Your task to perform on an android device: Search for "razer kraken" on target.com, select the first entry, add it to the cart, then select checkout. Image 0: 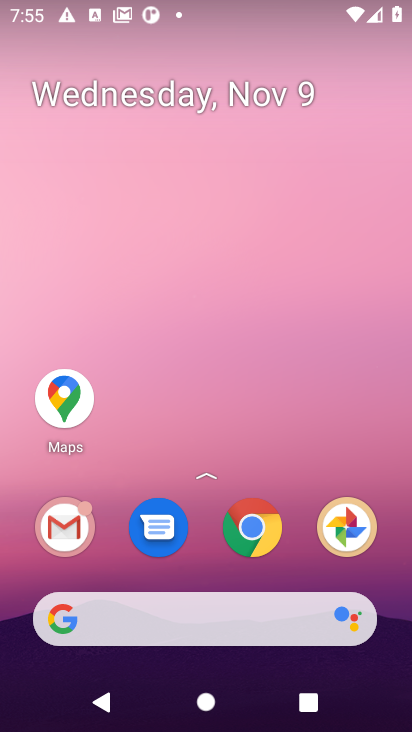
Step 0: click (247, 540)
Your task to perform on an android device: Search for "razer kraken" on target.com, select the first entry, add it to the cart, then select checkout. Image 1: 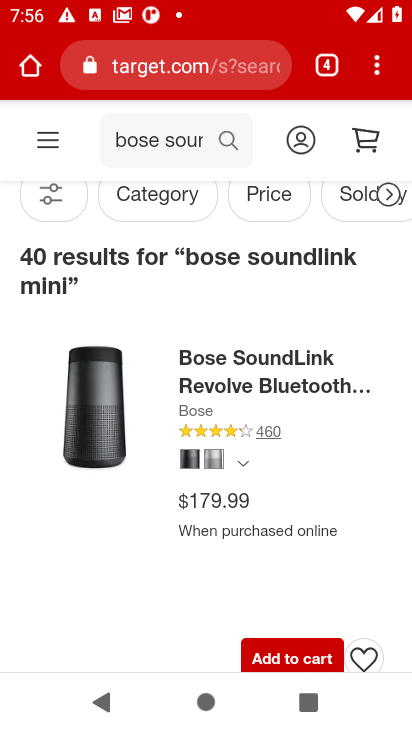
Step 1: click (225, 145)
Your task to perform on an android device: Search for "razer kraken" on target.com, select the first entry, add it to the cart, then select checkout. Image 2: 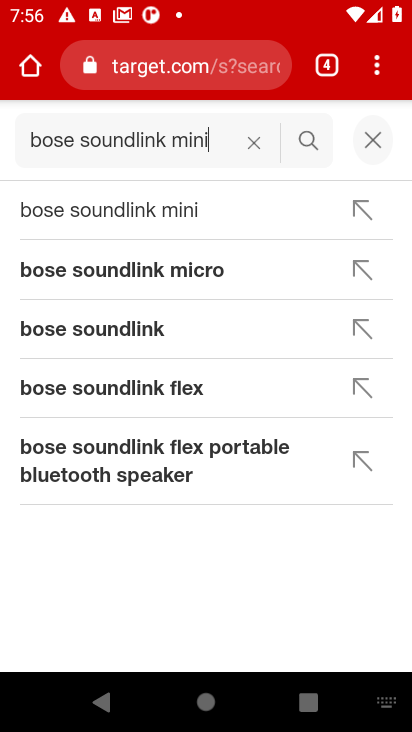
Step 2: click (252, 141)
Your task to perform on an android device: Search for "razer kraken" on target.com, select the first entry, add it to the cart, then select checkout. Image 3: 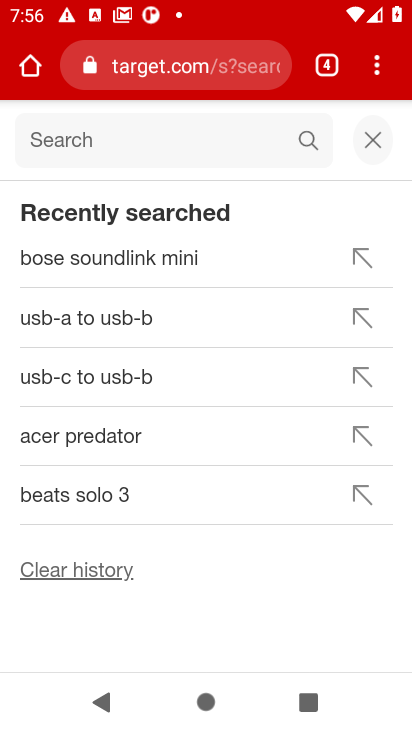
Step 3: type "razer kraken"
Your task to perform on an android device: Search for "razer kraken" on target.com, select the first entry, add it to the cart, then select checkout. Image 4: 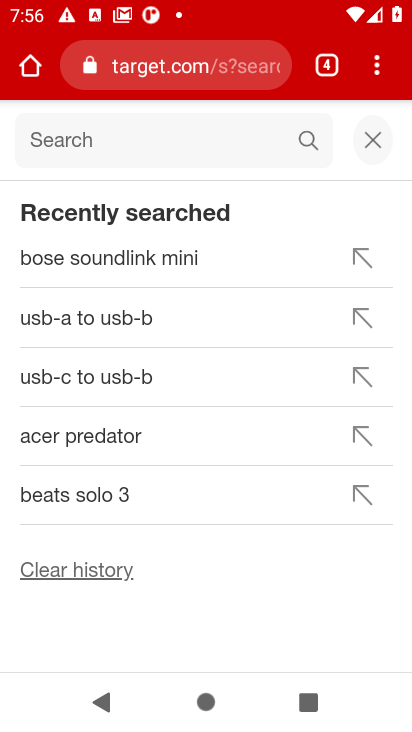
Step 4: click (79, 145)
Your task to perform on an android device: Search for "razer kraken" on target.com, select the first entry, add it to the cart, then select checkout. Image 5: 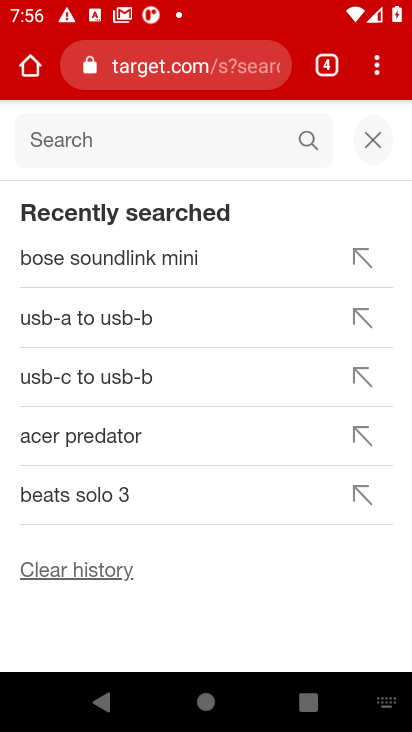
Step 5: type "razer kraken"
Your task to perform on an android device: Search for "razer kraken" on target.com, select the first entry, add it to the cart, then select checkout. Image 6: 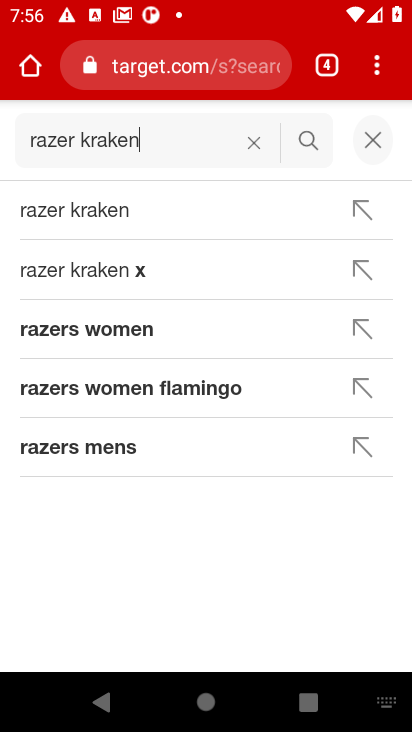
Step 6: click (53, 215)
Your task to perform on an android device: Search for "razer kraken" on target.com, select the first entry, add it to the cart, then select checkout. Image 7: 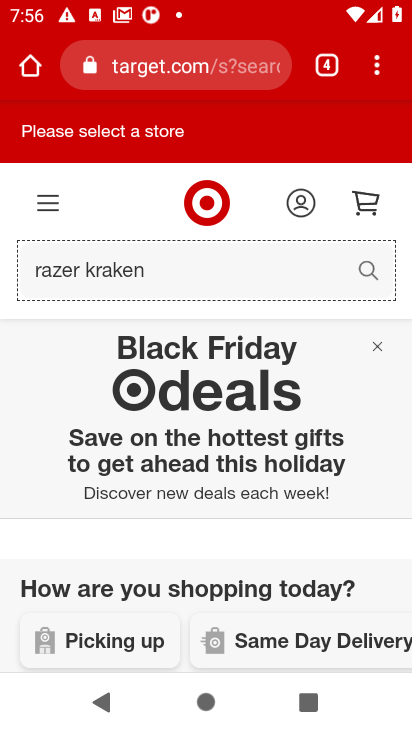
Step 7: drag from (178, 573) to (196, 267)
Your task to perform on an android device: Search for "razer kraken" on target.com, select the first entry, add it to the cart, then select checkout. Image 8: 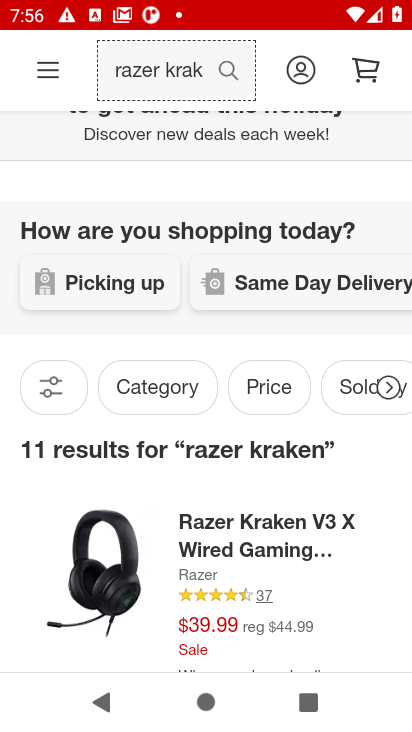
Step 8: drag from (187, 515) to (197, 350)
Your task to perform on an android device: Search for "razer kraken" on target.com, select the first entry, add it to the cart, then select checkout. Image 9: 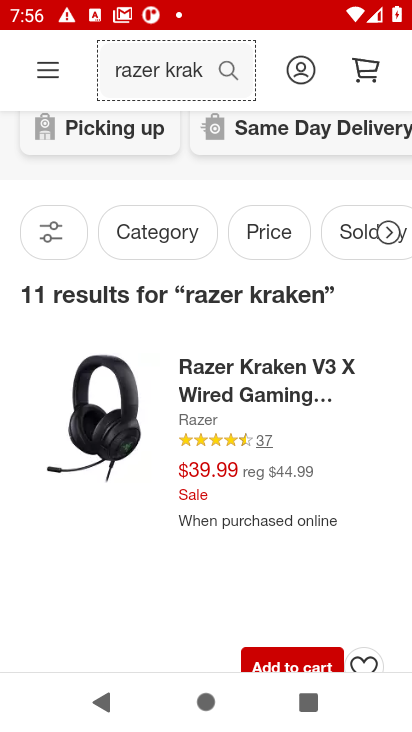
Step 9: click (201, 380)
Your task to perform on an android device: Search for "razer kraken" on target.com, select the first entry, add it to the cart, then select checkout. Image 10: 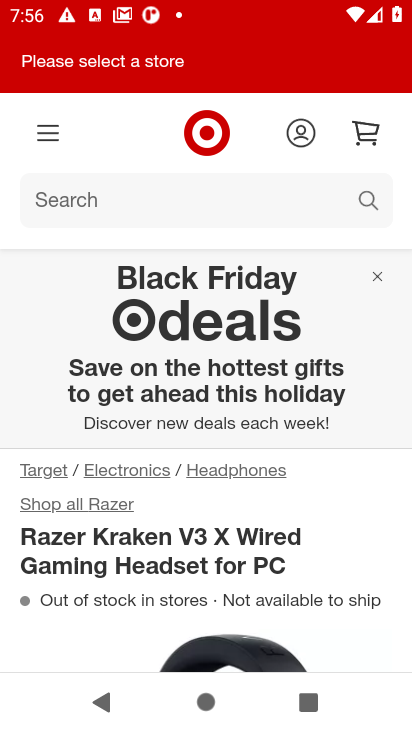
Step 10: drag from (195, 508) to (227, 219)
Your task to perform on an android device: Search for "razer kraken" on target.com, select the first entry, add it to the cart, then select checkout. Image 11: 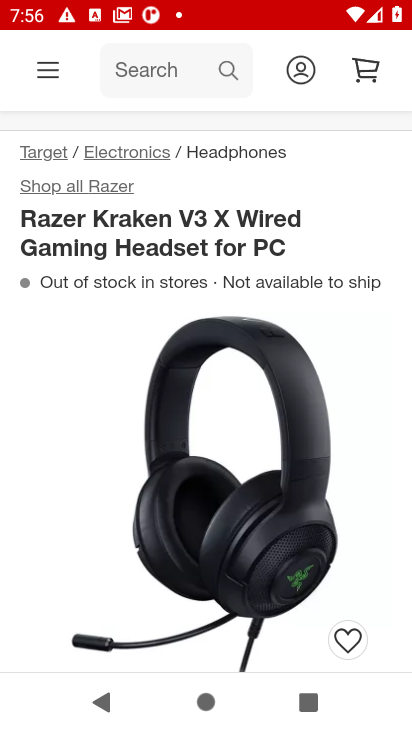
Step 11: drag from (226, 504) to (254, 210)
Your task to perform on an android device: Search for "razer kraken" on target.com, select the first entry, add it to the cart, then select checkout. Image 12: 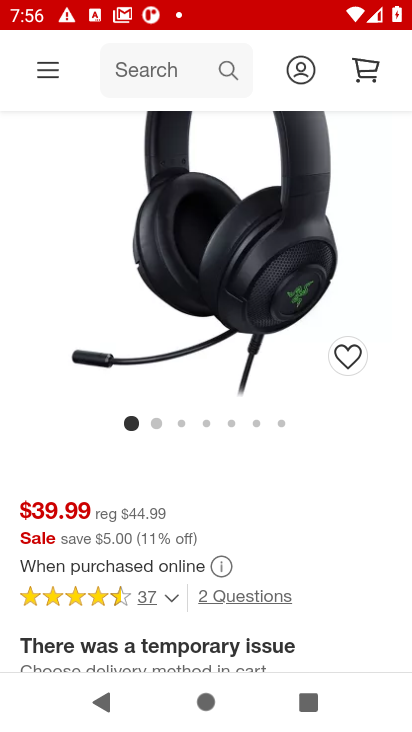
Step 12: drag from (230, 447) to (224, 186)
Your task to perform on an android device: Search for "razer kraken" on target.com, select the first entry, add it to the cart, then select checkout. Image 13: 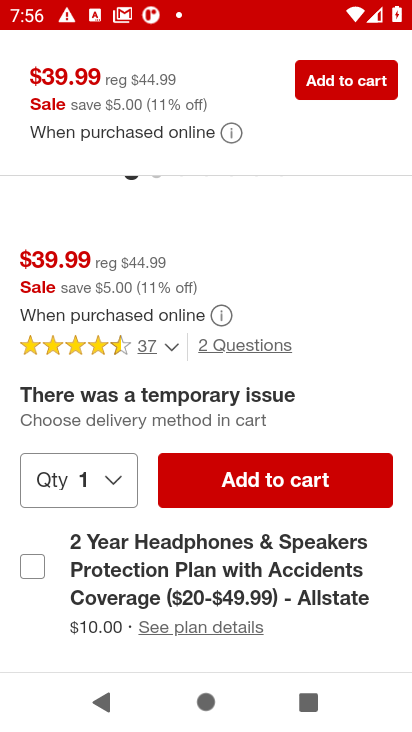
Step 13: click (246, 485)
Your task to perform on an android device: Search for "razer kraken" on target.com, select the first entry, add it to the cart, then select checkout. Image 14: 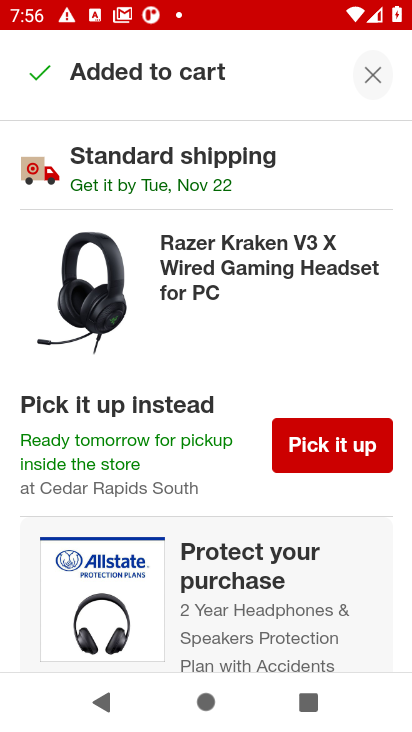
Step 14: click (376, 84)
Your task to perform on an android device: Search for "razer kraken" on target.com, select the first entry, add it to the cart, then select checkout. Image 15: 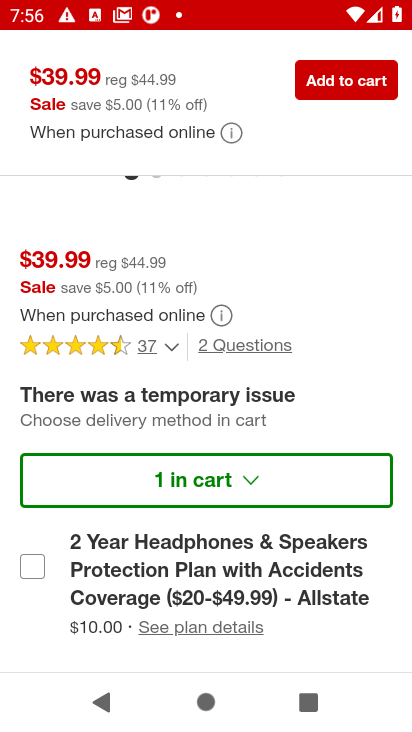
Step 15: task complete